Your task to perform on an android device: Open Google Chrome and open the bookmarks view Image 0: 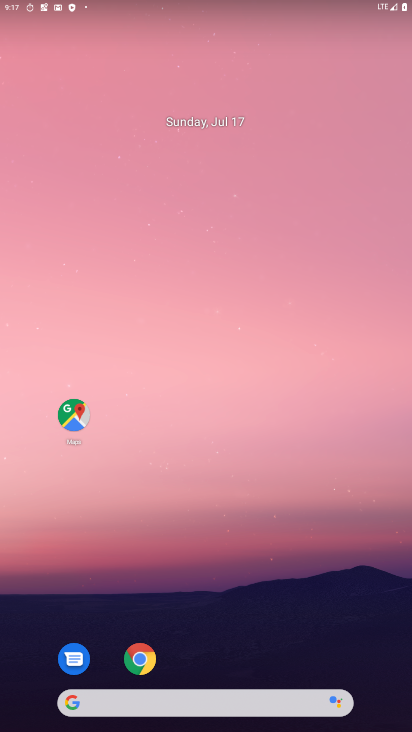
Step 0: drag from (309, 663) to (259, 115)
Your task to perform on an android device: Open Google Chrome and open the bookmarks view Image 1: 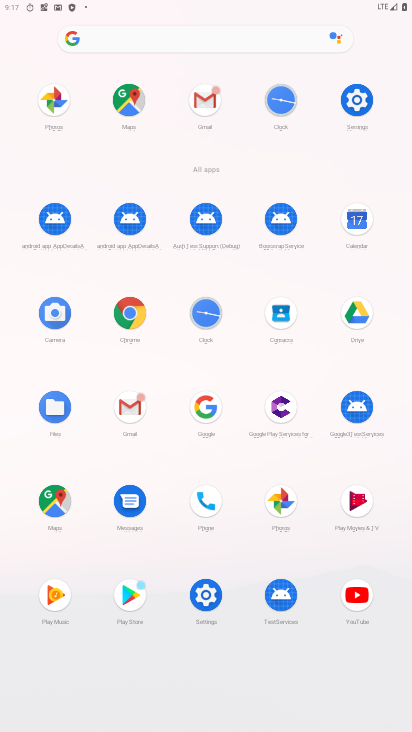
Step 1: click (138, 325)
Your task to perform on an android device: Open Google Chrome and open the bookmarks view Image 2: 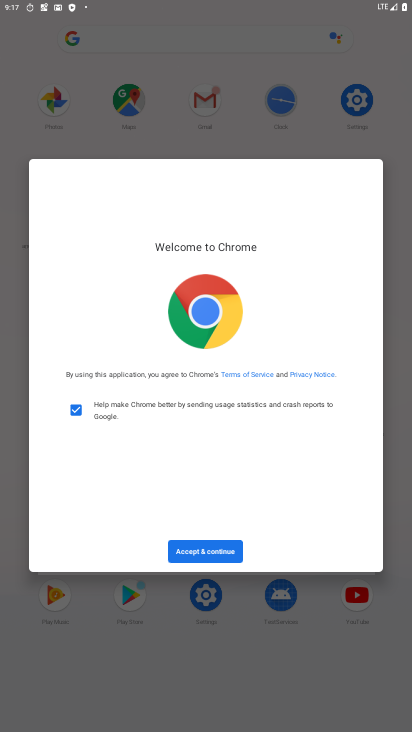
Step 2: click (211, 553)
Your task to perform on an android device: Open Google Chrome and open the bookmarks view Image 3: 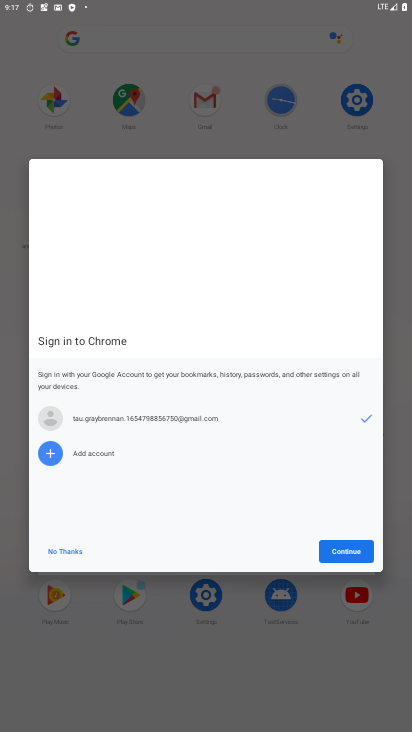
Step 3: click (342, 551)
Your task to perform on an android device: Open Google Chrome and open the bookmarks view Image 4: 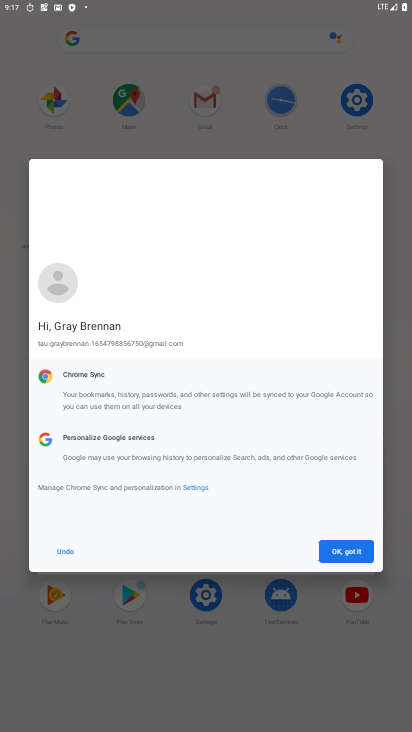
Step 4: click (347, 549)
Your task to perform on an android device: Open Google Chrome and open the bookmarks view Image 5: 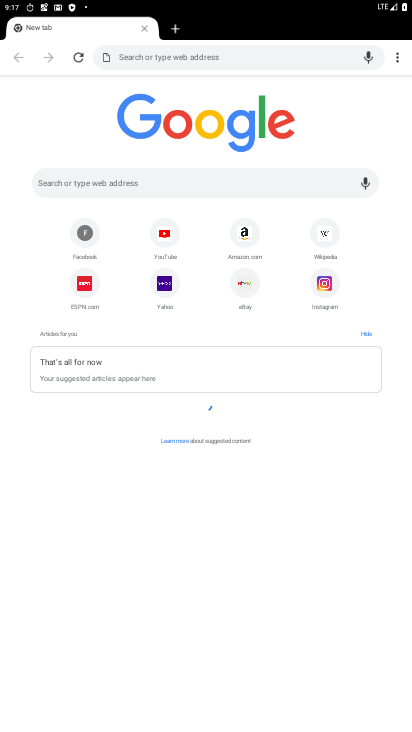
Step 5: click (400, 57)
Your task to perform on an android device: Open Google Chrome and open the bookmarks view Image 6: 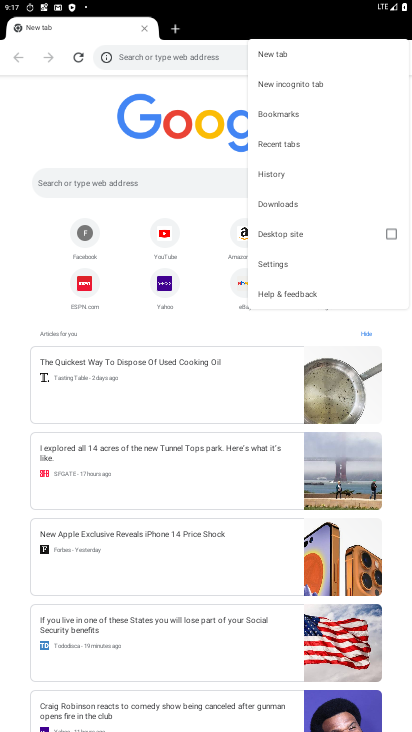
Step 6: click (314, 112)
Your task to perform on an android device: Open Google Chrome and open the bookmarks view Image 7: 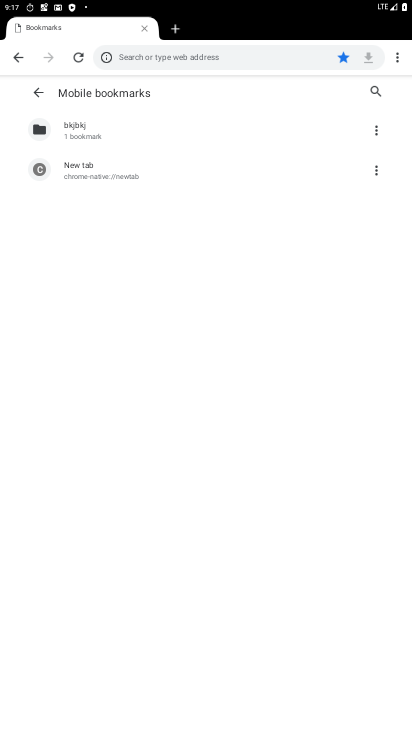
Step 7: click (194, 186)
Your task to perform on an android device: Open Google Chrome and open the bookmarks view Image 8: 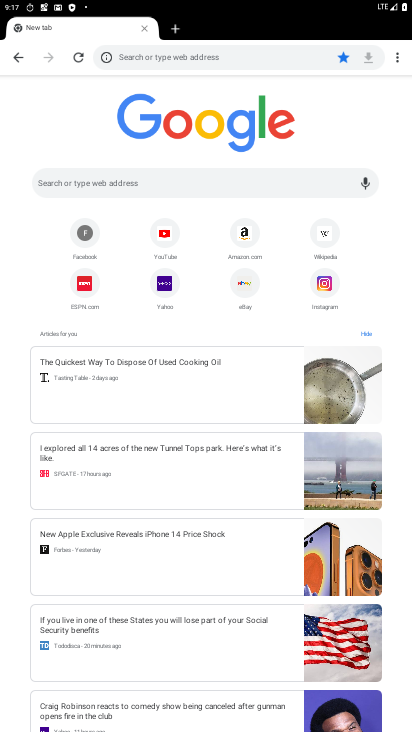
Step 8: task complete